Your task to perform on an android device: turn on improve location accuracy Image 0: 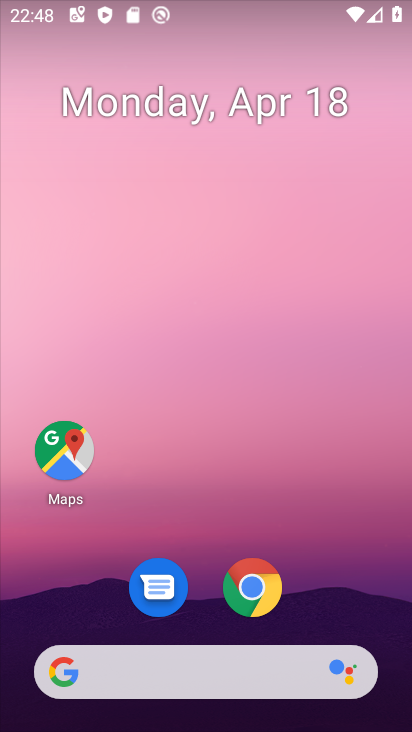
Step 0: drag from (357, 389) to (357, 191)
Your task to perform on an android device: turn on improve location accuracy Image 1: 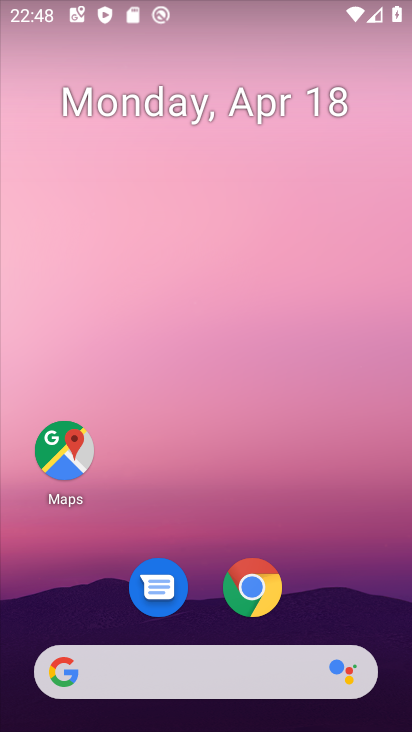
Step 1: drag from (363, 577) to (373, 97)
Your task to perform on an android device: turn on improve location accuracy Image 2: 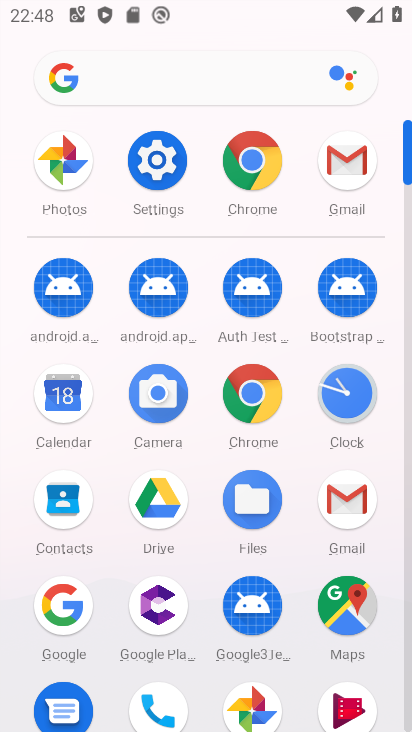
Step 2: click (153, 153)
Your task to perform on an android device: turn on improve location accuracy Image 3: 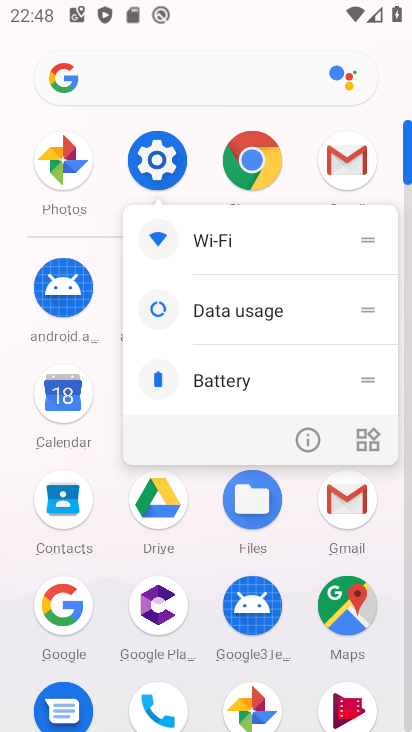
Step 3: click (154, 154)
Your task to perform on an android device: turn on improve location accuracy Image 4: 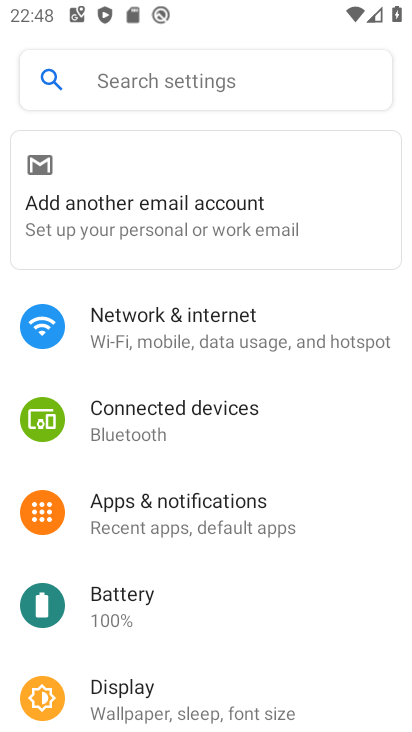
Step 4: drag from (275, 565) to (258, 200)
Your task to perform on an android device: turn on improve location accuracy Image 5: 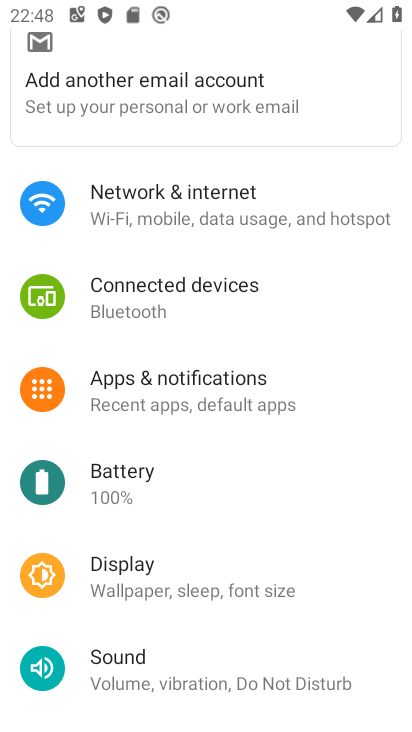
Step 5: drag from (280, 612) to (335, 263)
Your task to perform on an android device: turn on improve location accuracy Image 6: 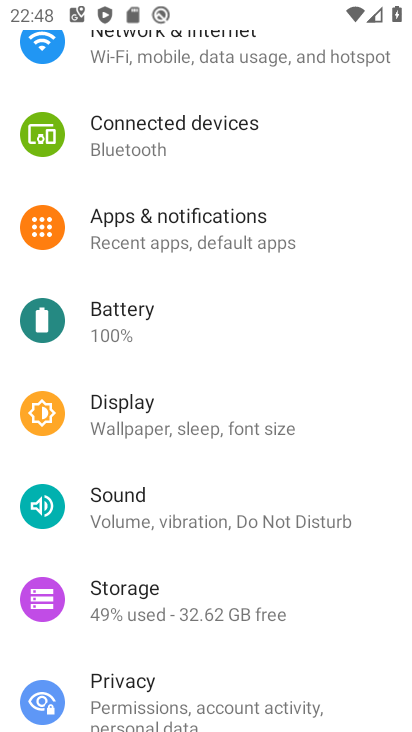
Step 6: drag from (234, 657) to (306, 284)
Your task to perform on an android device: turn on improve location accuracy Image 7: 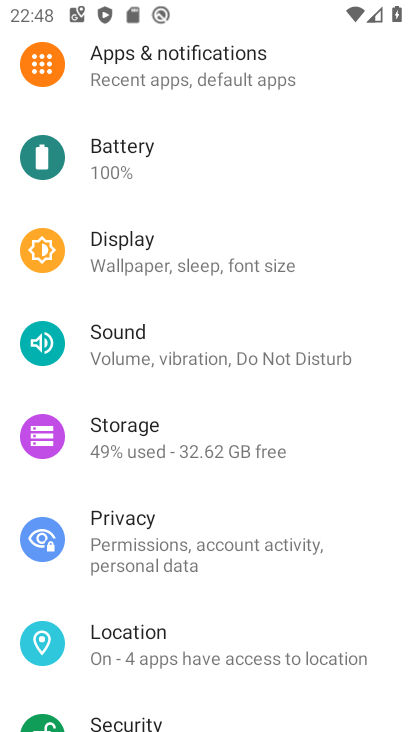
Step 7: click (137, 661)
Your task to perform on an android device: turn on improve location accuracy Image 8: 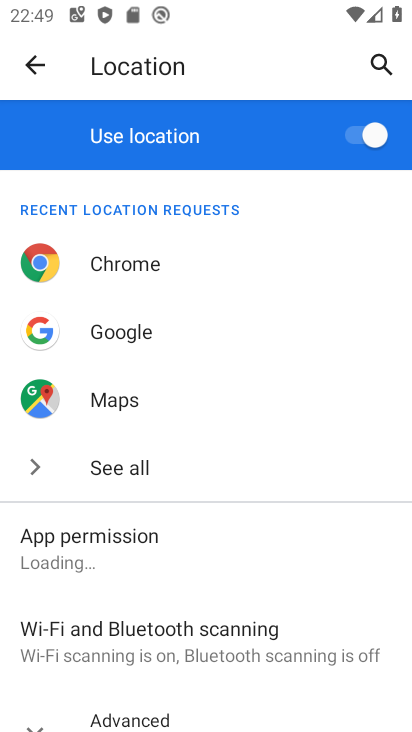
Step 8: drag from (260, 545) to (282, 288)
Your task to perform on an android device: turn on improve location accuracy Image 9: 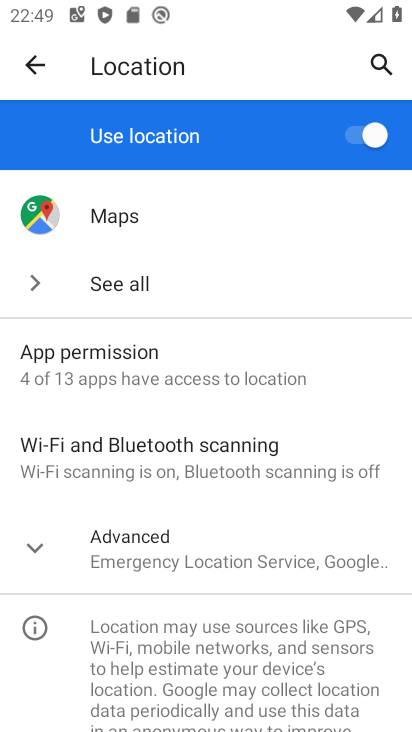
Step 9: click (164, 546)
Your task to perform on an android device: turn on improve location accuracy Image 10: 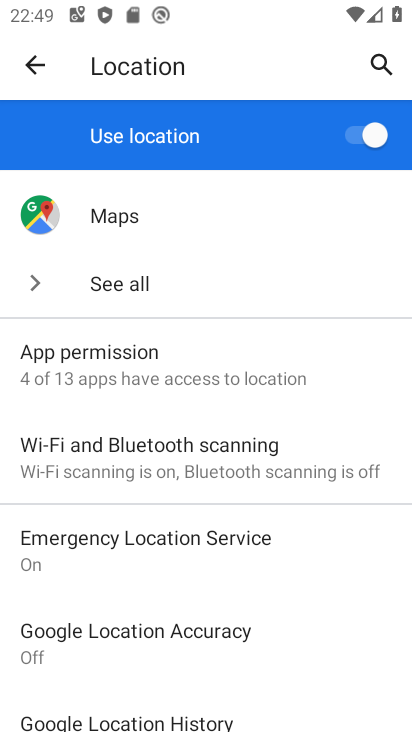
Step 10: click (217, 619)
Your task to perform on an android device: turn on improve location accuracy Image 11: 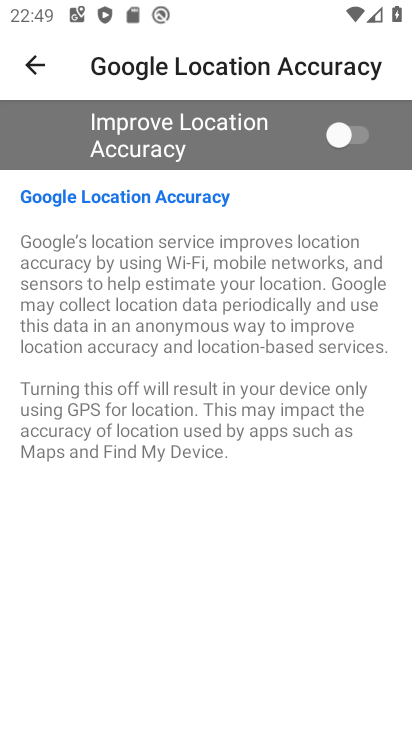
Step 11: click (367, 140)
Your task to perform on an android device: turn on improve location accuracy Image 12: 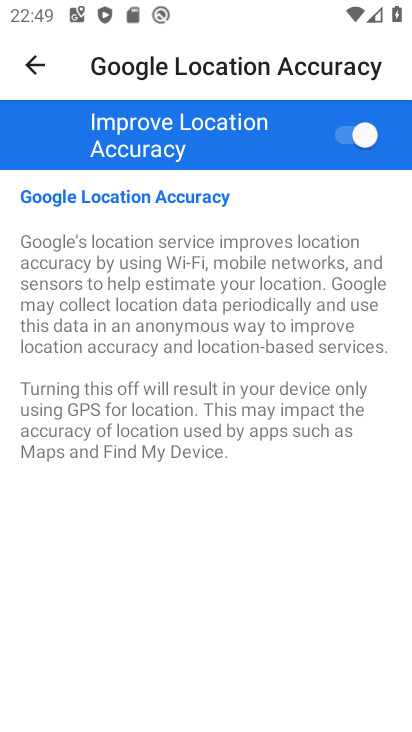
Step 12: task complete